Your task to perform on an android device: Show me recent news Image 0: 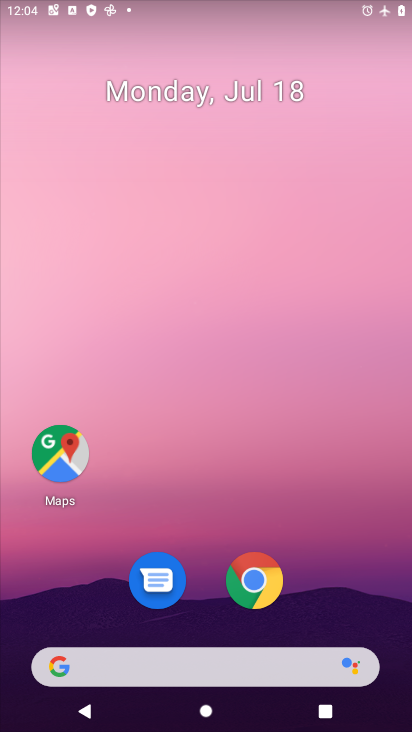
Step 0: drag from (144, 660) to (207, 248)
Your task to perform on an android device: Show me recent news Image 1: 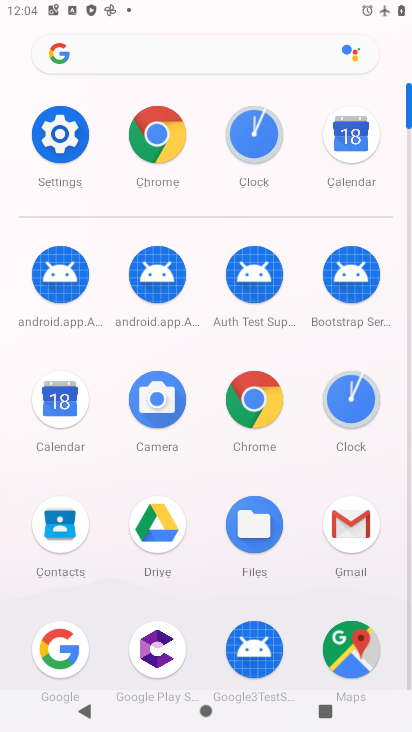
Step 1: drag from (183, 559) to (223, 367)
Your task to perform on an android device: Show me recent news Image 2: 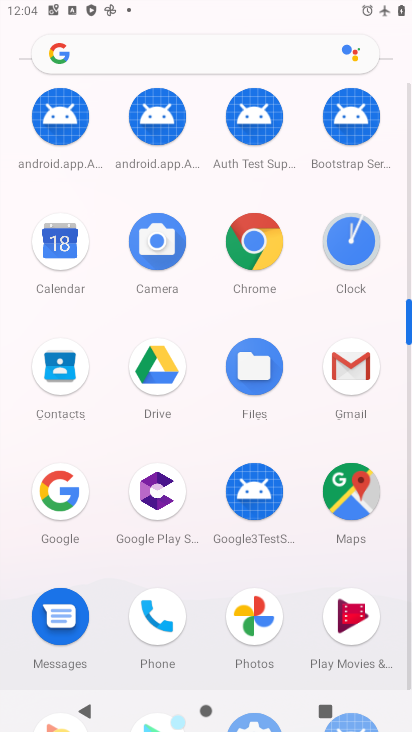
Step 2: click (67, 511)
Your task to perform on an android device: Show me recent news Image 3: 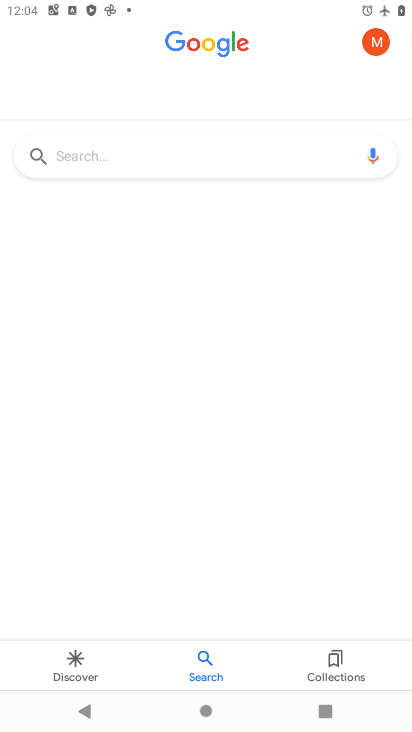
Step 3: click (146, 157)
Your task to perform on an android device: Show me recent news Image 4: 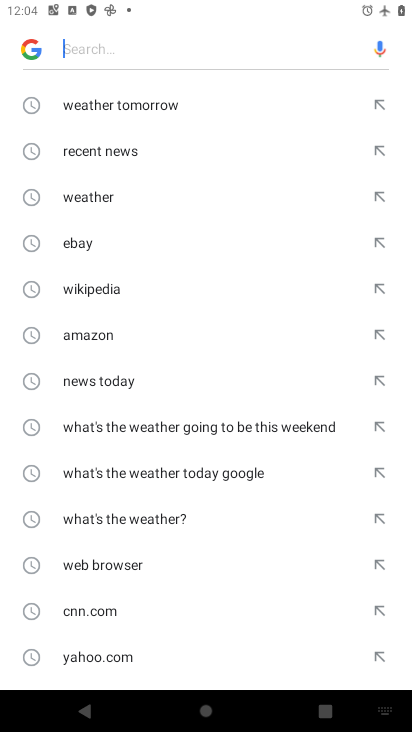
Step 4: click (135, 154)
Your task to perform on an android device: Show me recent news Image 5: 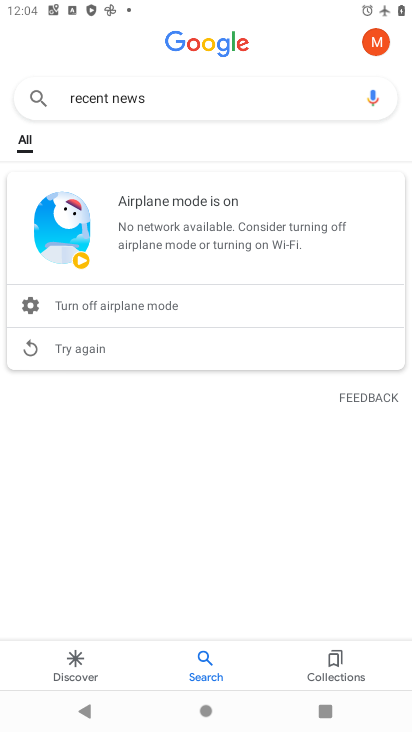
Step 5: task complete